Your task to perform on an android device: Open Youtube and go to "Your channel" Image 0: 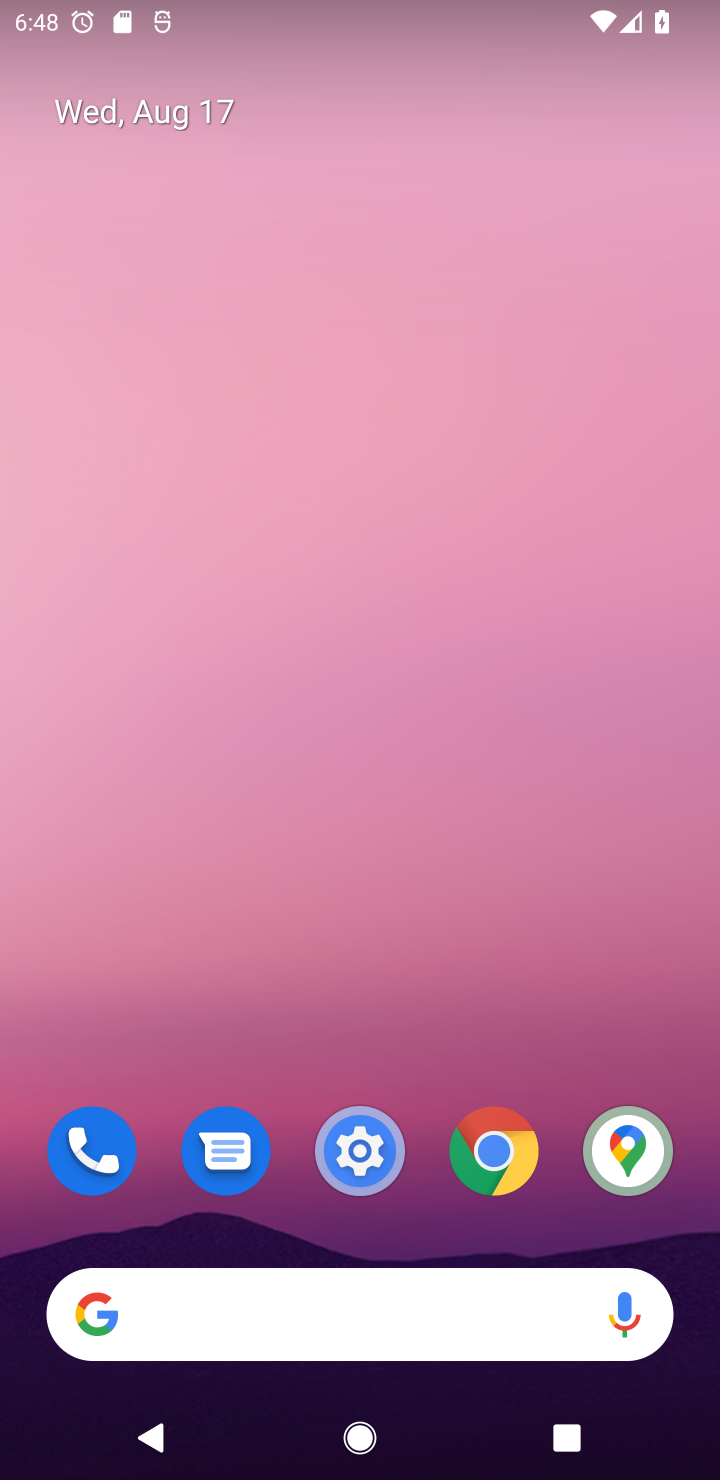
Step 0: drag from (447, 1234) to (425, 61)
Your task to perform on an android device: Open Youtube and go to "Your channel" Image 1: 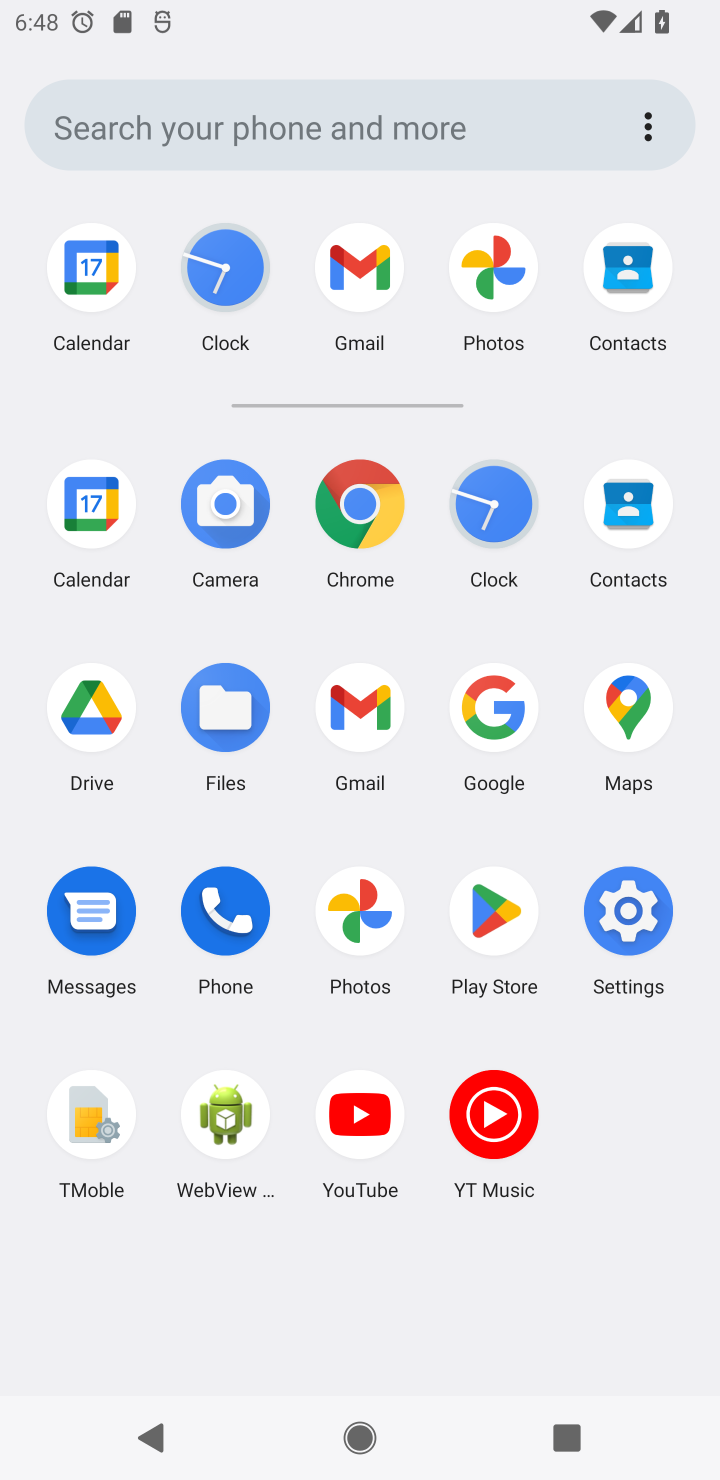
Step 1: click (392, 1162)
Your task to perform on an android device: Open Youtube and go to "Your channel" Image 2: 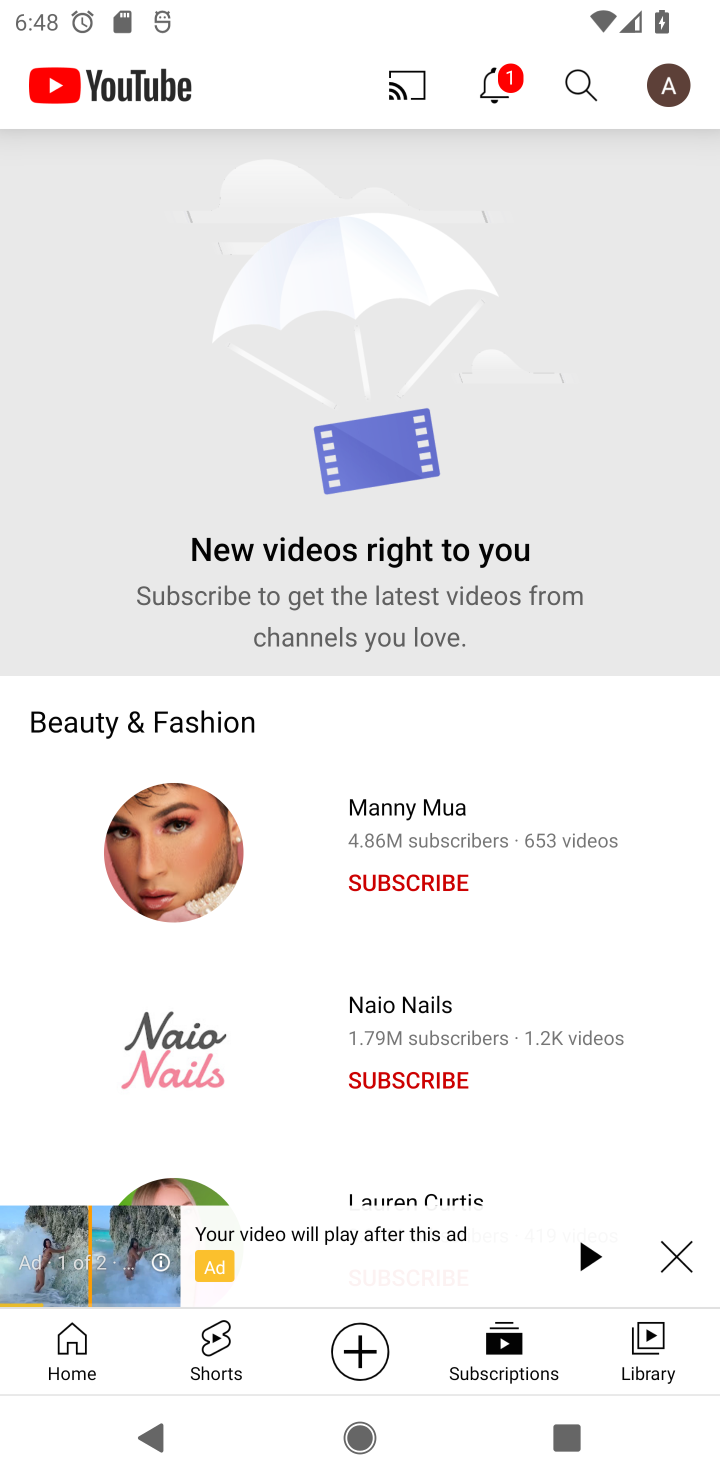
Step 2: click (651, 1358)
Your task to perform on an android device: Open Youtube and go to "Your channel" Image 3: 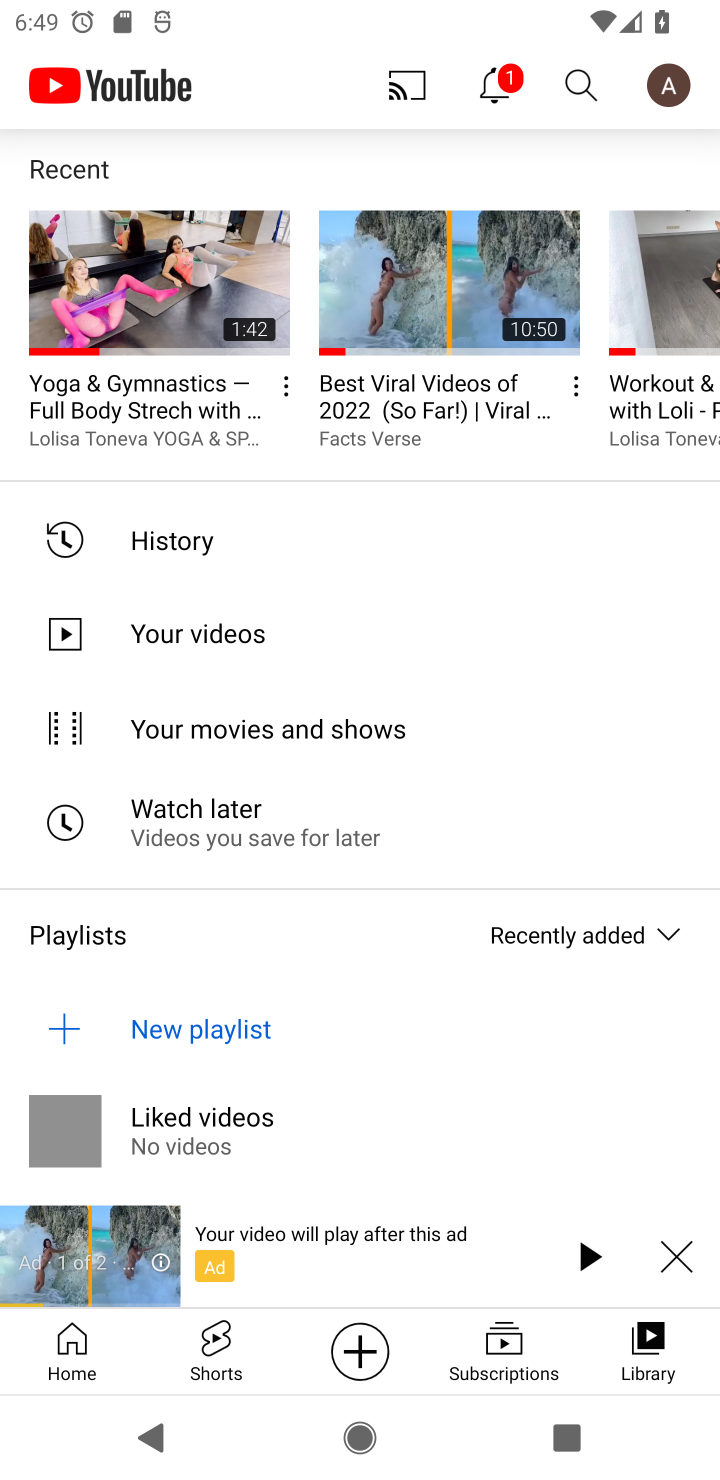
Step 3: click (156, 637)
Your task to perform on an android device: Open Youtube and go to "Your channel" Image 4: 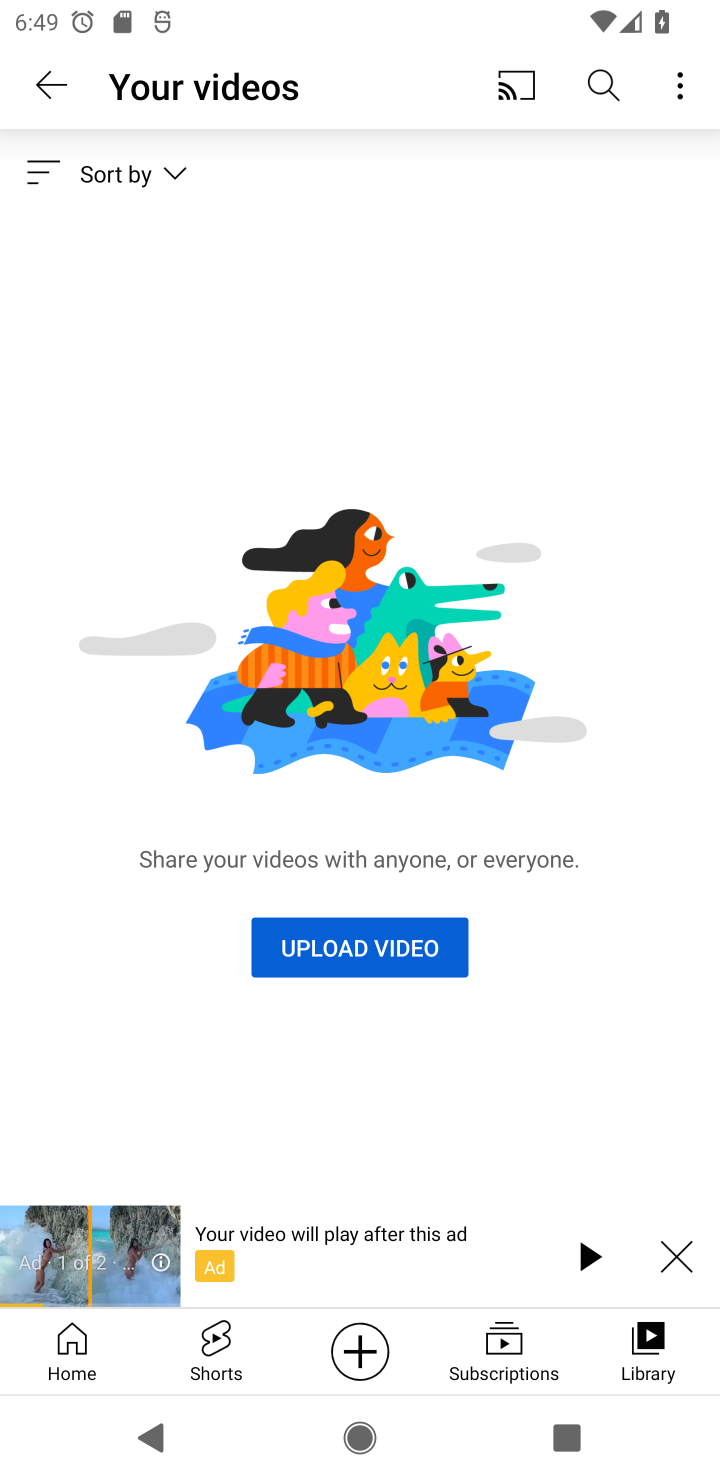
Step 4: task complete